Your task to perform on an android device: toggle translation in the chrome app Image 0: 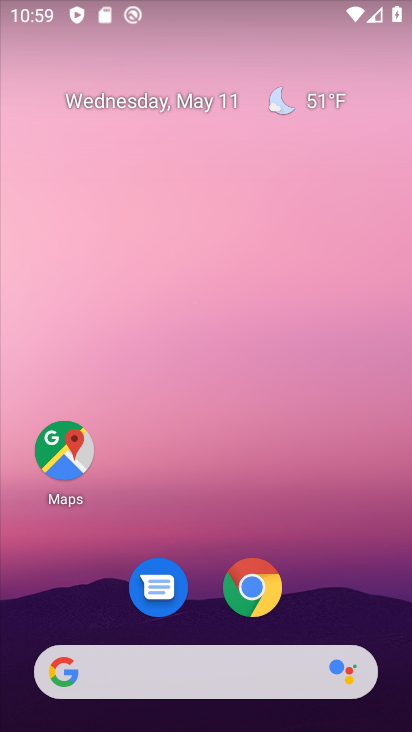
Step 0: click (251, 586)
Your task to perform on an android device: toggle translation in the chrome app Image 1: 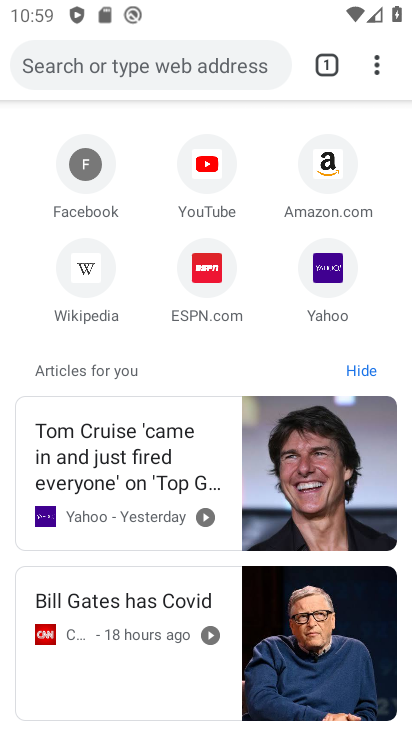
Step 1: click (371, 65)
Your task to perform on an android device: toggle translation in the chrome app Image 2: 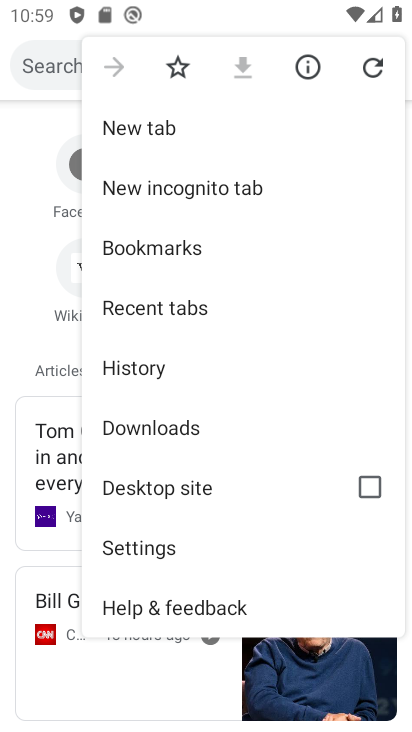
Step 2: click (159, 541)
Your task to perform on an android device: toggle translation in the chrome app Image 3: 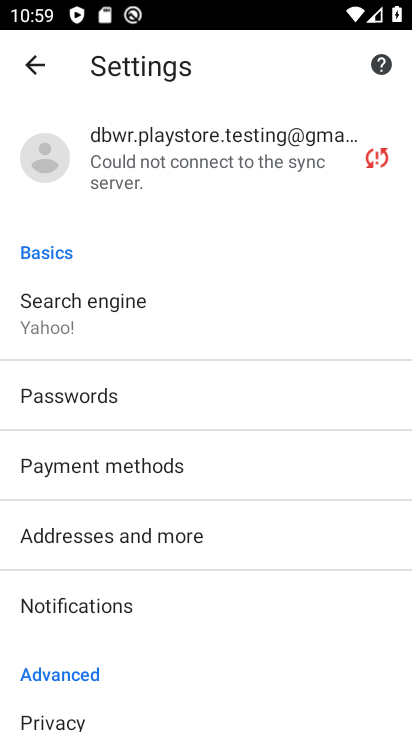
Step 3: drag from (147, 671) to (222, 191)
Your task to perform on an android device: toggle translation in the chrome app Image 4: 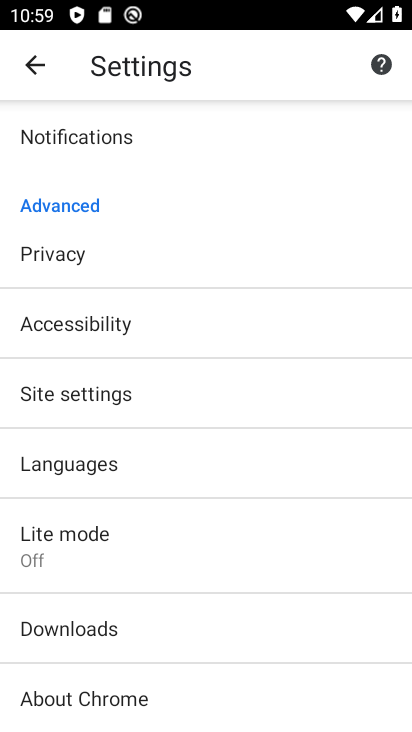
Step 4: click (118, 471)
Your task to perform on an android device: toggle translation in the chrome app Image 5: 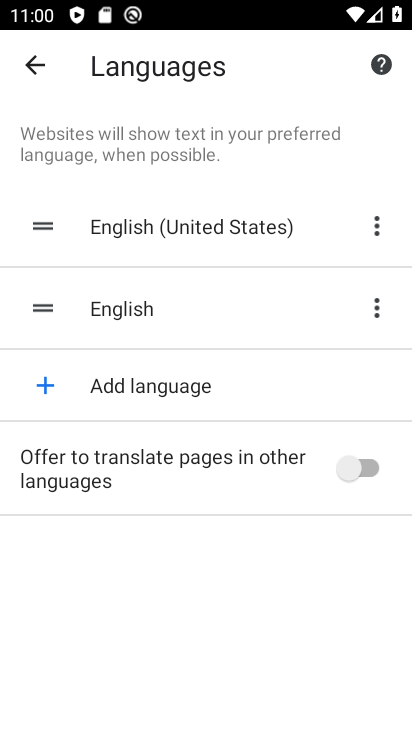
Step 5: click (352, 472)
Your task to perform on an android device: toggle translation in the chrome app Image 6: 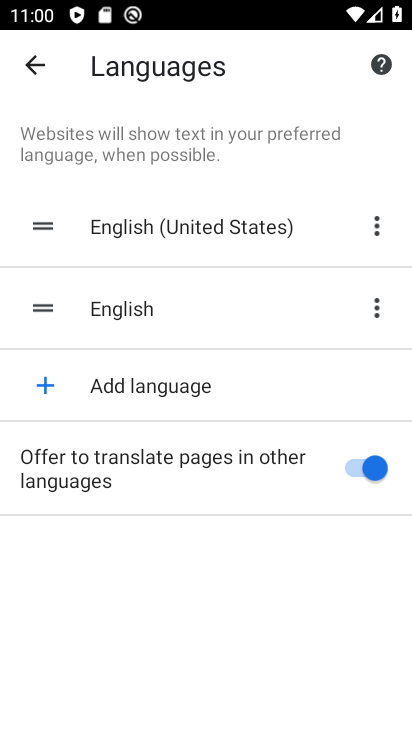
Step 6: task complete